Your task to perform on an android device: toggle location history Image 0: 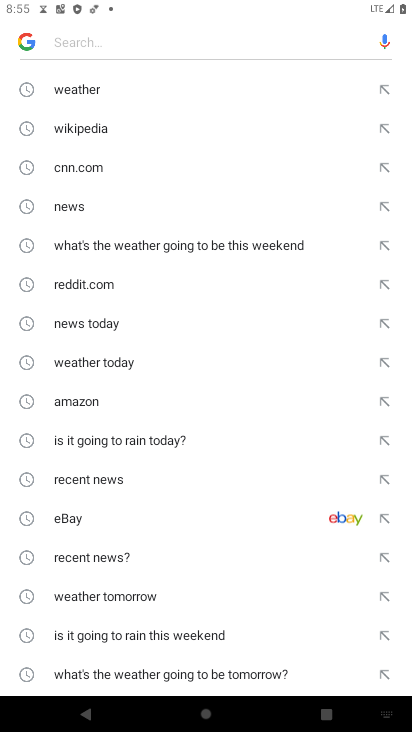
Step 0: press home button
Your task to perform on an android device: toggle location history Image 1: 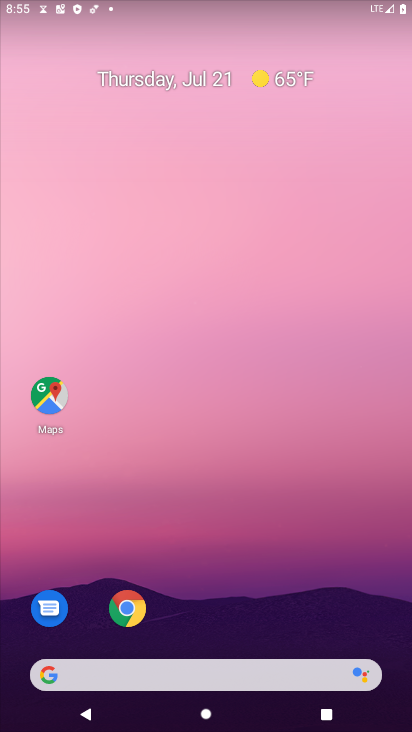
Step 1: drag from (206, 677) to (173, 206)
Your task to perform on an android device: toggle location history Image 2: 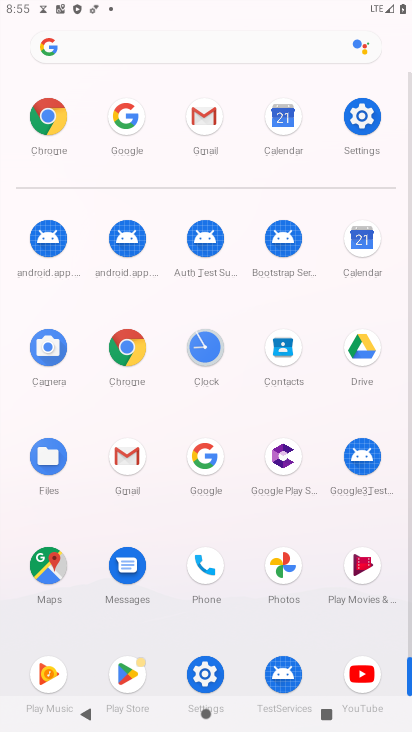
Step 2: click (360, 116)
Your task to perform on an android device: toggle location history Image 3: 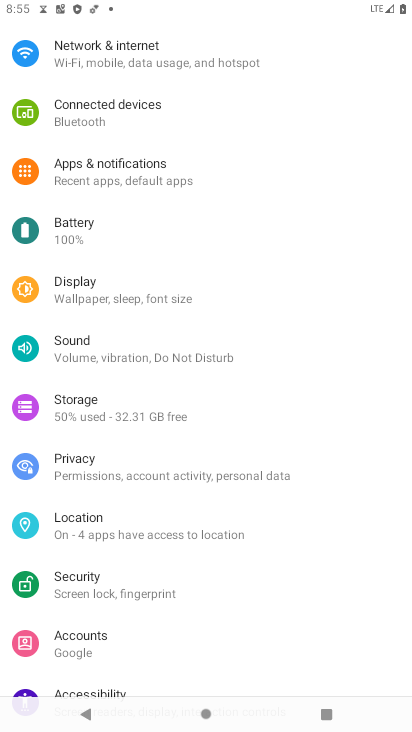
Step 3: click (82, 529)
Your task to perform on an android device: toggle location history Image 4: 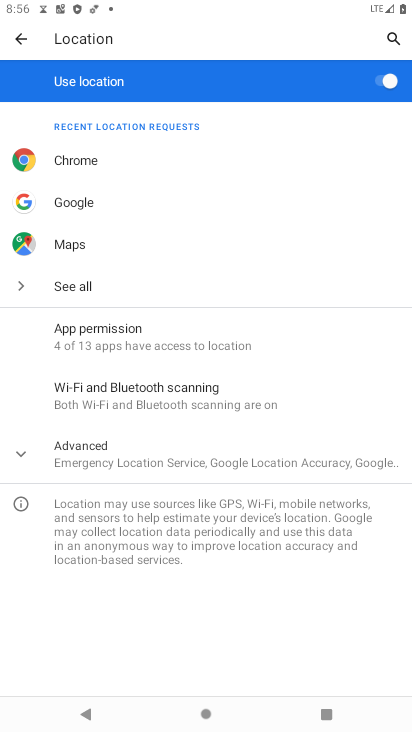
Step 4: click (166, 459)
Your task to perform on an android device: toggle location history Image 5: 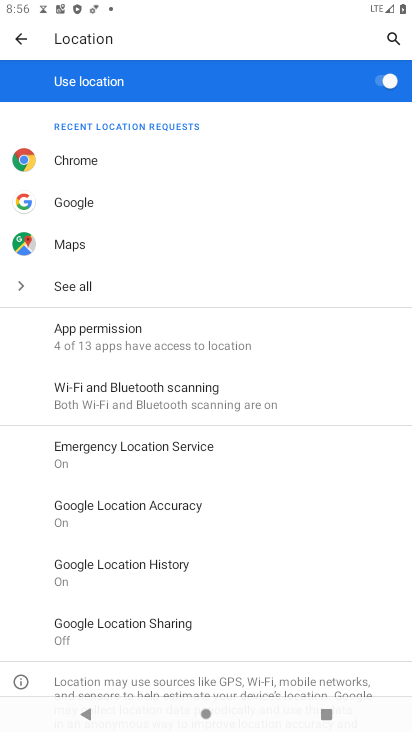
Step 5: click (160, 565)
Your task to perform on an android device: toggle location history Image 6: 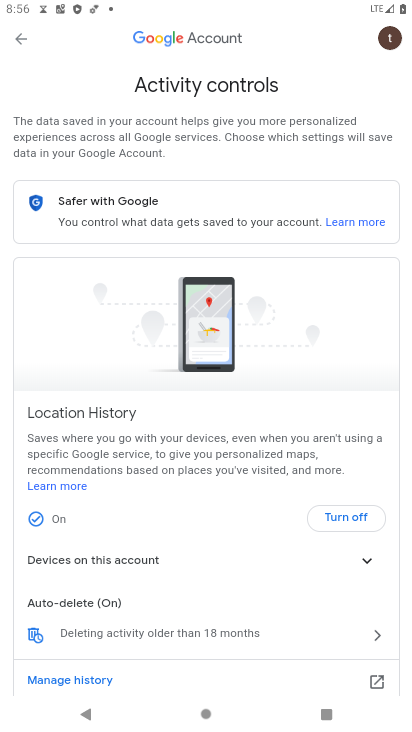
Step 6: click (347, 519)
Your task to perform on an android device: toggle location history Image 7: 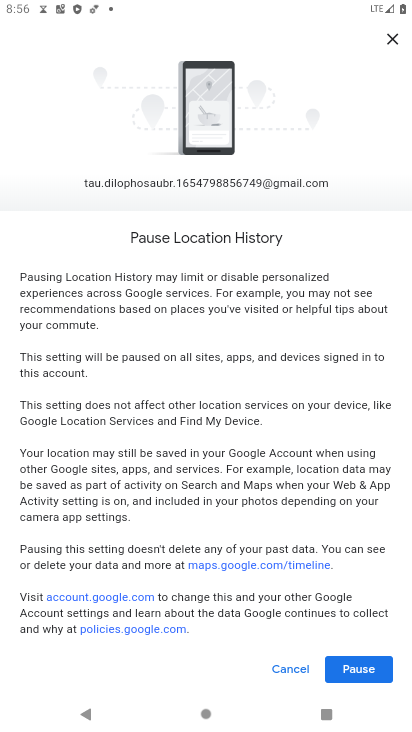
Step 7: drag from (232, 591) to (383, 383)
Your task to perform on an android device: toggle location history Image 8: 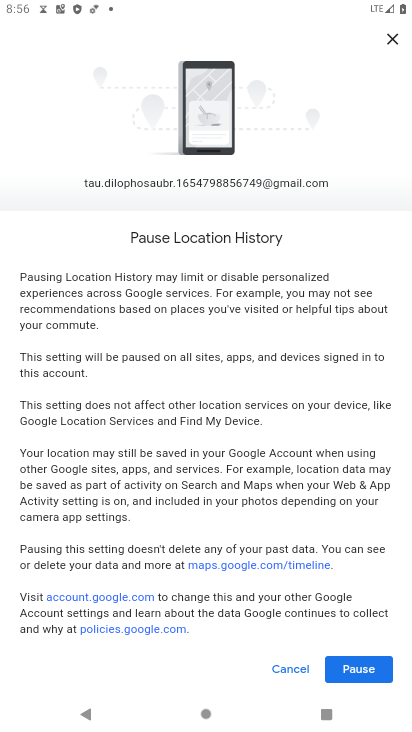
Step 8: drag from (274, 581) to (352, 405)
Your task to perform on an android device: toggle location history Image 9: 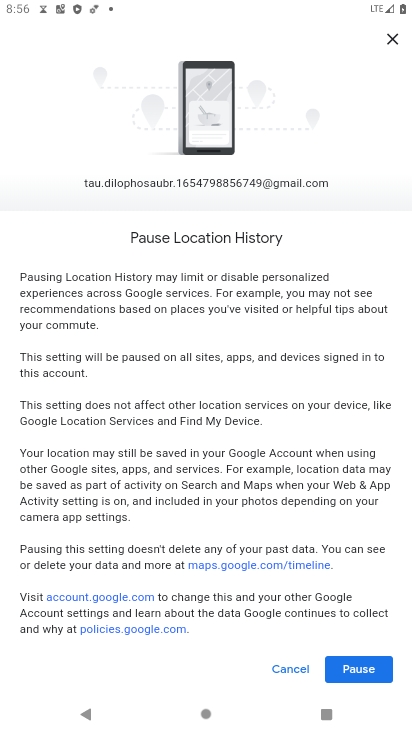
Step 9: click (365, 670)
Your task to perform on an android device: toggle location history Image 10: 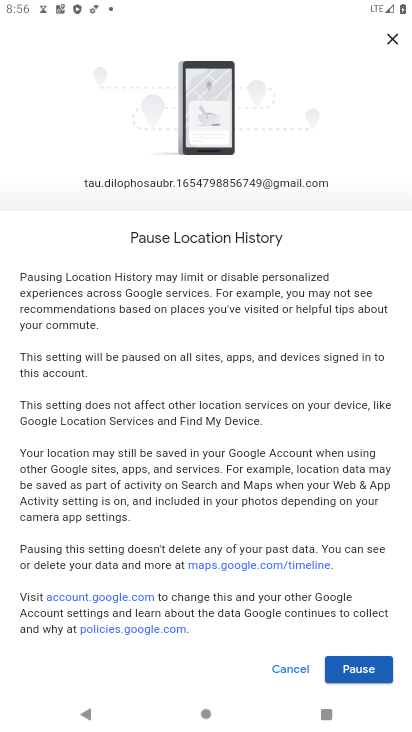
Step 10: click (353, 671)
Your task to perform on an android device: toggle location history Image 11: 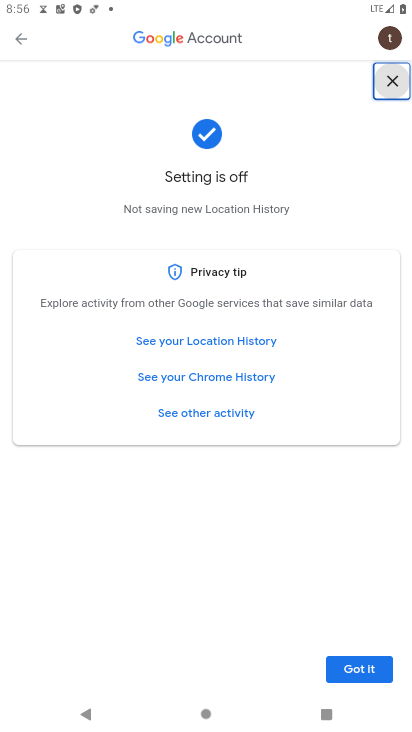
Step 11: click (366, 669)
Your task to perform on an android device: toggle location history Image 12: 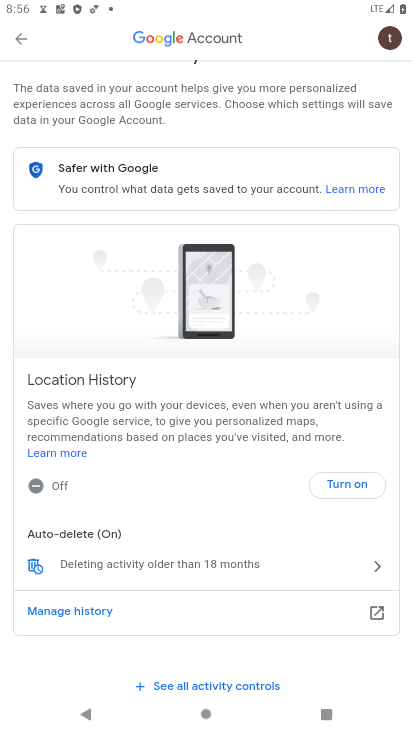
Step 12: task complete